Your task to perform on an android device: Open Chrome and go to settings Image 0: 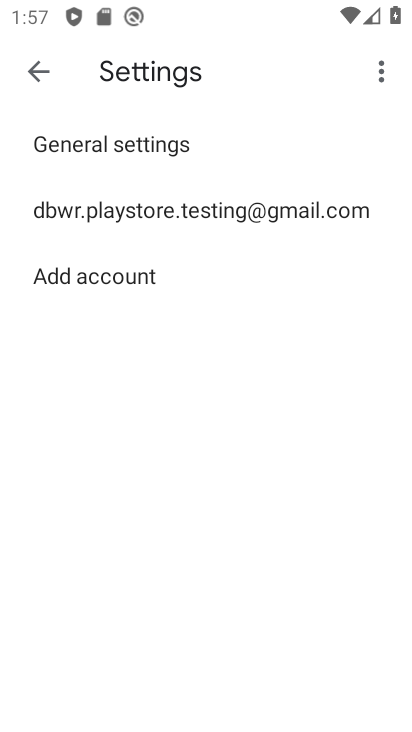
Step 0: press home button
Your task to perform on an android device: Open Chrome and go to settings Image 1: 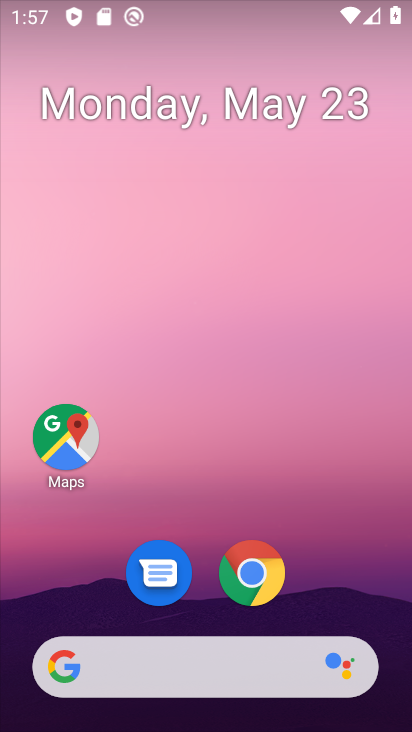
Step 1: drag from (370, 547) to (378, 174)
Your task to perform on an android device: Open Chrome and go to settings Image 2: 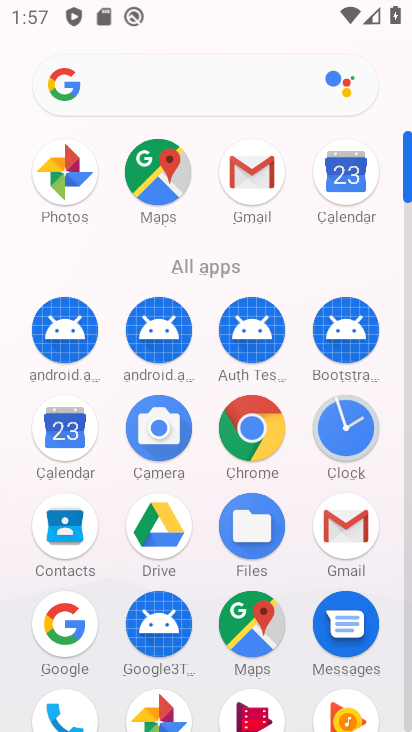
Step 2: click (246, 432)
Your task to perform on an android device: Open Chrome and go to settings Image 3: 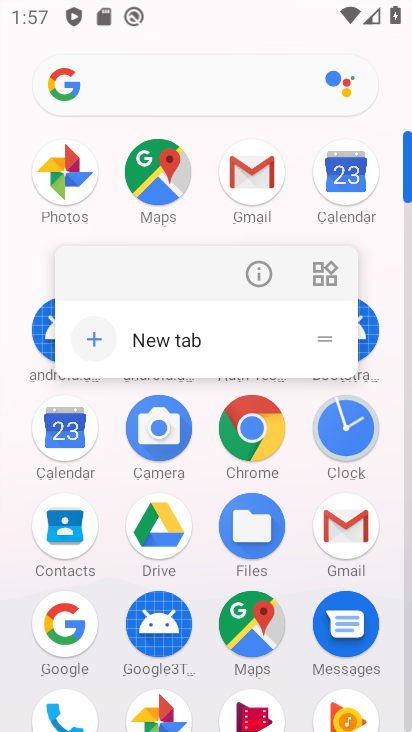
Step 3: click (241, 432)
Your task to perform on an android device: Open Chrome and go to settings Image 4: 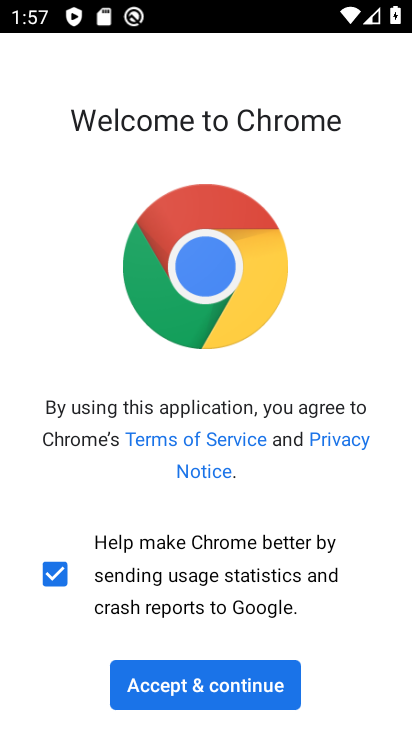
Step 4: click (167, 706)
Your task to perform on an android device: Open Chrome and go to settings Image 5: 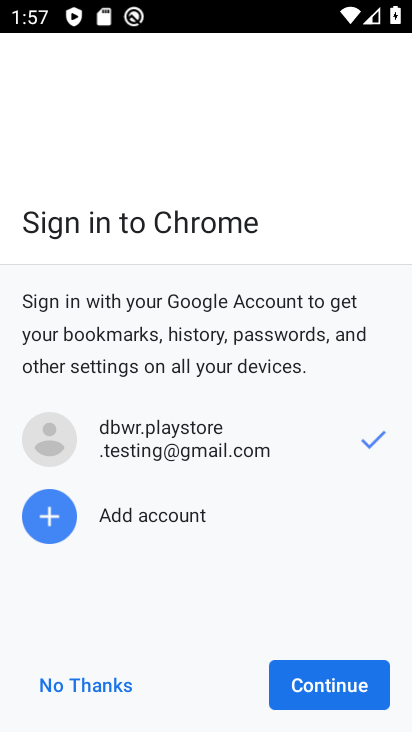
Step 5: click (316, 670)
Your task to perform on an android device: Open Chrome and go to settings Image 6: 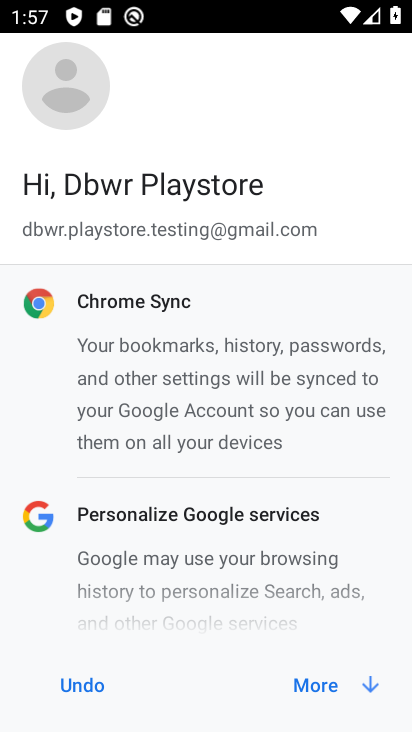
Step 6: click (309, 687)
Your task to perform on an android device: Open Chrome and go to settings Image 7: 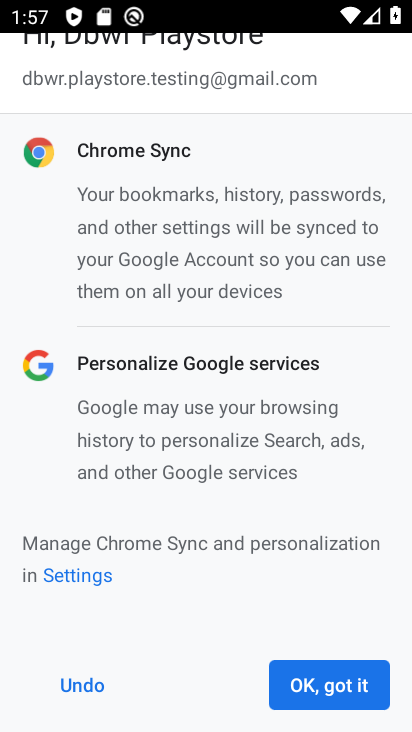
Step 7: click (309, 687)
Your task to perform on an android device: Open Chrome and go to settings Image 8: 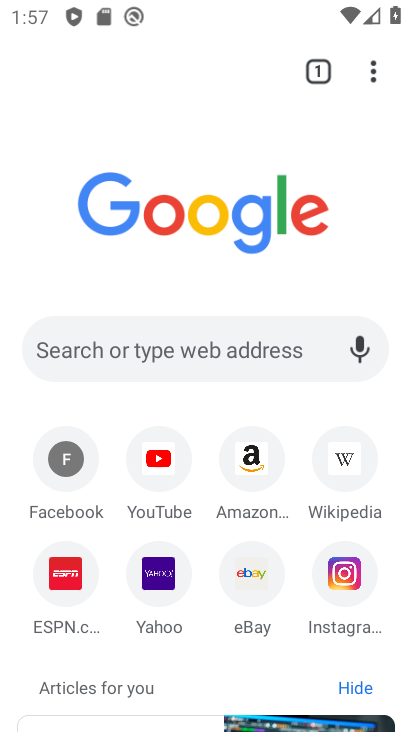
Step 8: click (372, 76)
Your task to perform on an android device: Open Chrome and go to settings Image 9: 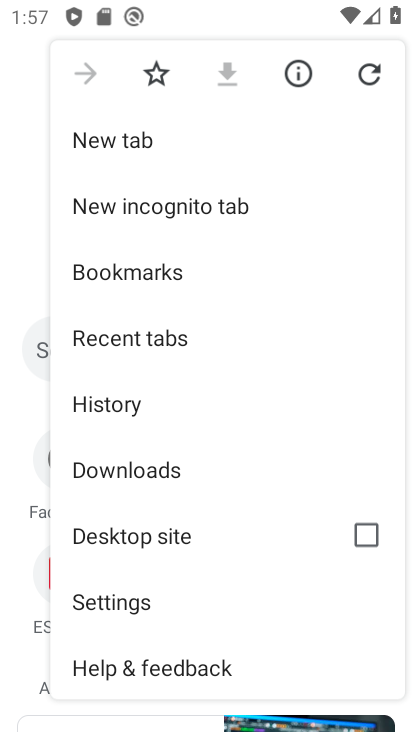
Step 9: click (131, 610)
Your task to perform on an android device: Open Chrome and go to settings Image 10: 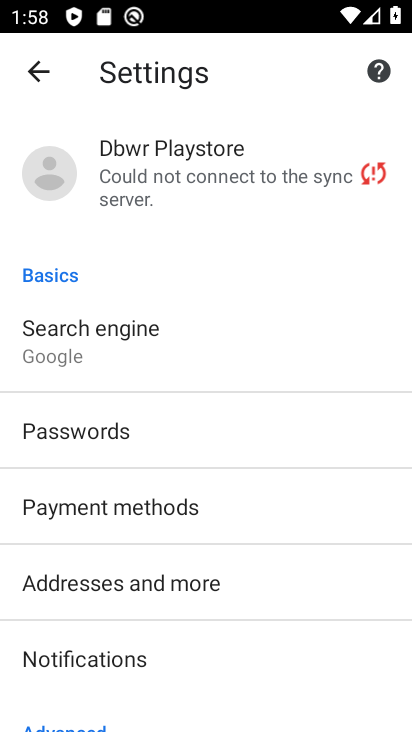
Step 10: task complete